Your task to perform on an android device: toggle show notifications on the lock screen Image 0: 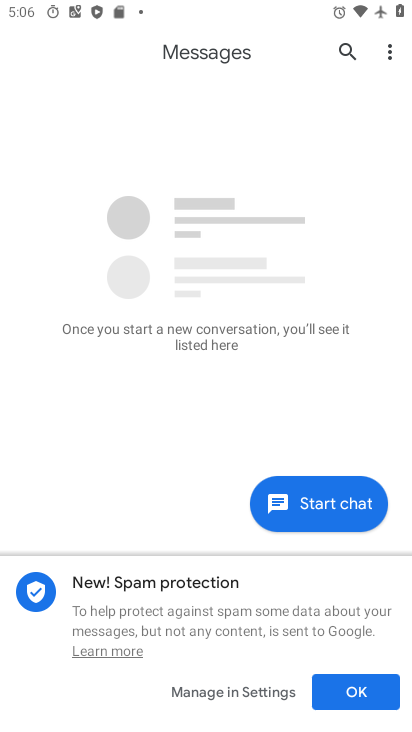
Step 0: press back button
Your task to perform on an android device: toggle show notifications on the lock screen Image 1: 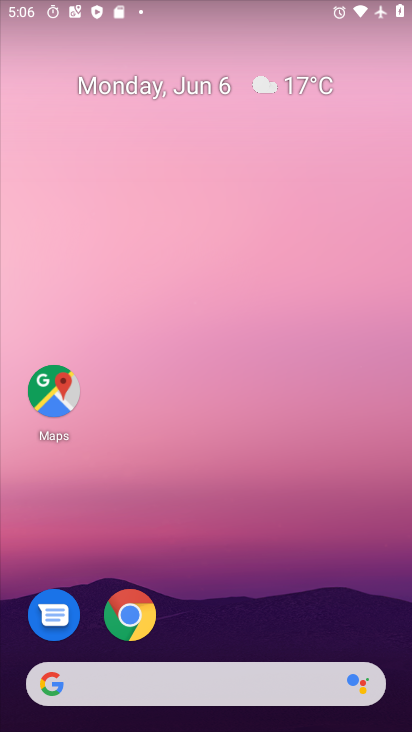
Step 1: drag from (257, 578) to (156, 11)
Your task to perform on an android device: toggle show notifications on the lock screen Image 2: 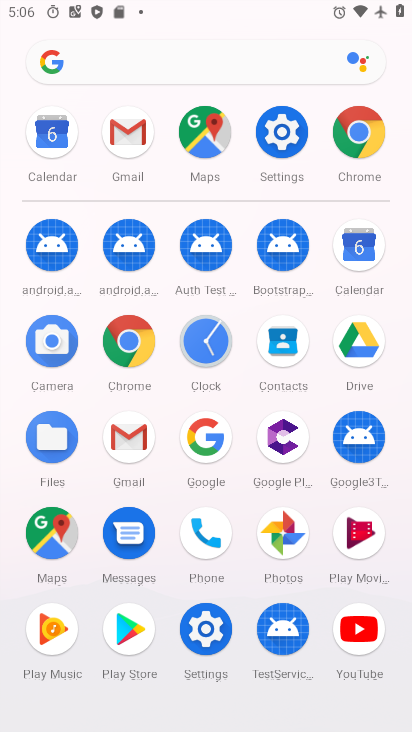
Step 2: click (196, 631)
Your task to perform on an android device: toggle show notifications on the lock screen Image 3: 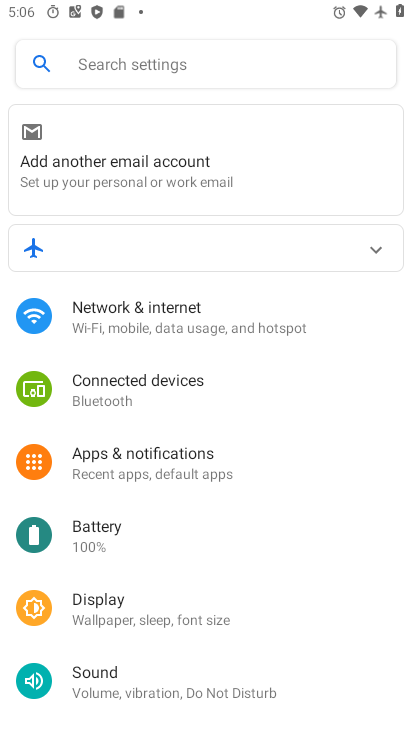
Step 3: click (182, 467)
Your task to perform on an android device: toggle show notifications on the lock screen Image 4: 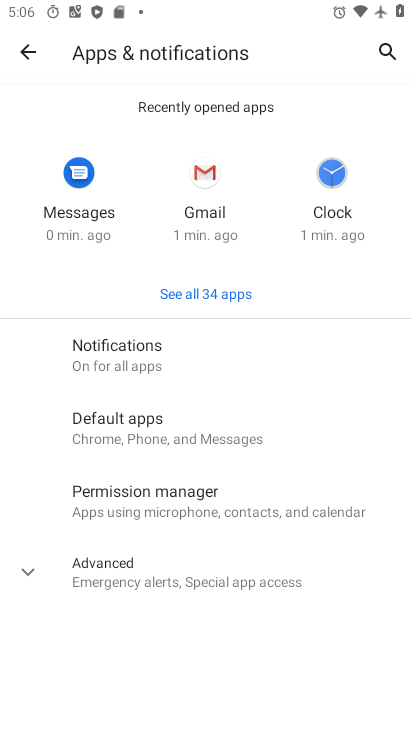
Step 4: click (20, 573)
Your task to perform on an android device: toggle show notifications on the lock screen Image 5: 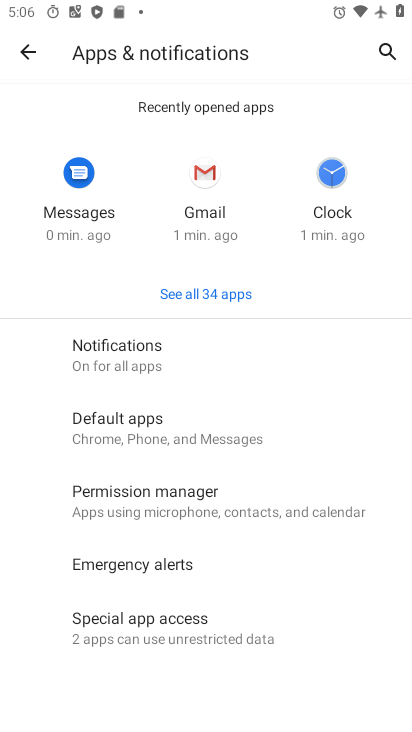
Step 5: click (199, 344)
Your task to perform on an android device: toggle show notifications on the lock screen Image 6: 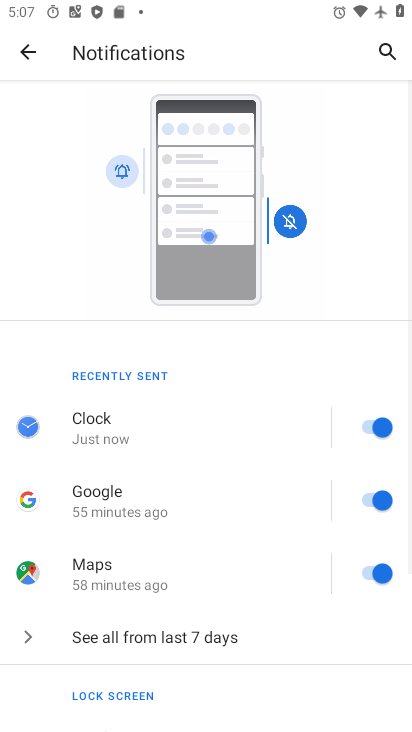
Step 6: drag from (200, 561) to (225, 157)
Your task to perform on an android device: toggle show notifications on the lock screen Image 7: 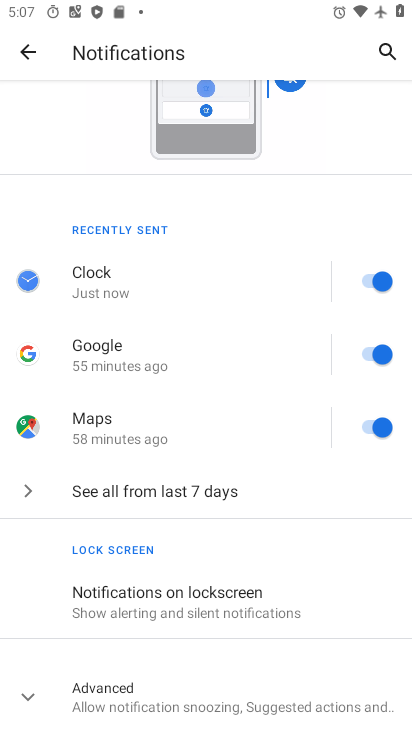
Step 7: click (78, 696)
Your task to perform on an android device: toggle show notifications on the lock screen Image 8: 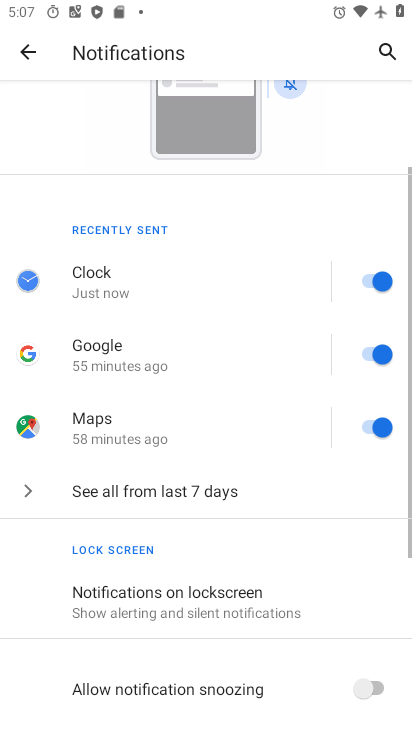
Step 8: task complete